Your task to perform on an android device: toggle data saver in the chrome app Image 0: 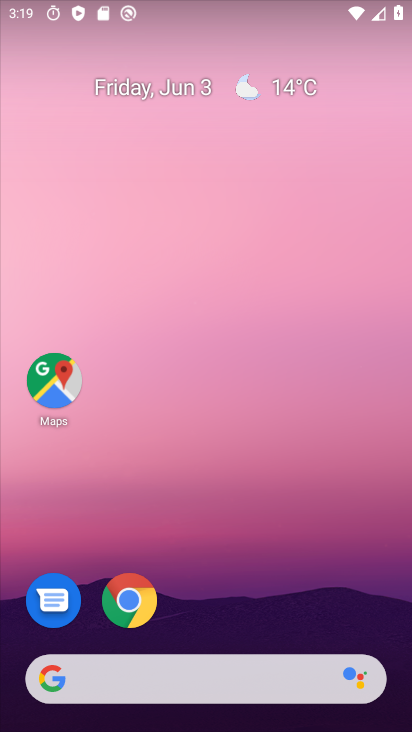
Step 0: drag from (223, 500) to (0, 459)
Your task to perform on an android device: toggle data saver in the chrome app Image 1: 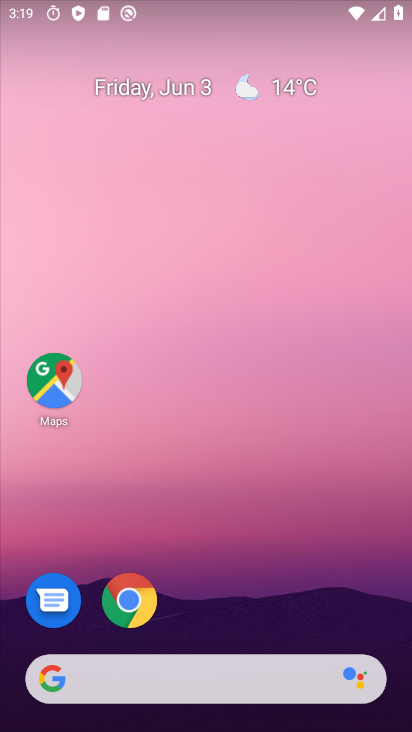
Step 1: drag from (9, 509) to (0, 77)
Your task to perform on an android device: toggle data saver in the chrome app Image 2: 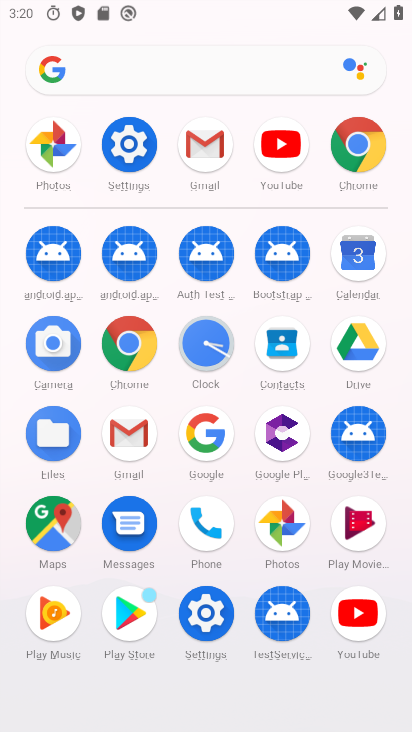
Step 2: click (128, 337)
Your task to perform on an android device: toggle data saver in the chrome app Image 3: 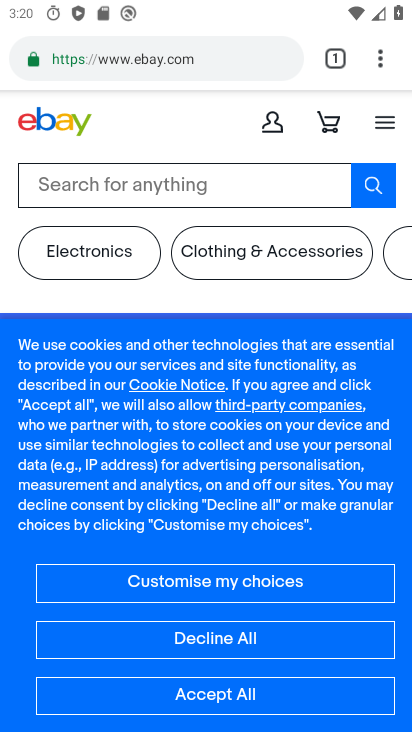
Step 3: drag from (377, 55) to (171, 630)
Your task to perform on an android device: toggle data saver in the chrome app Image 4: 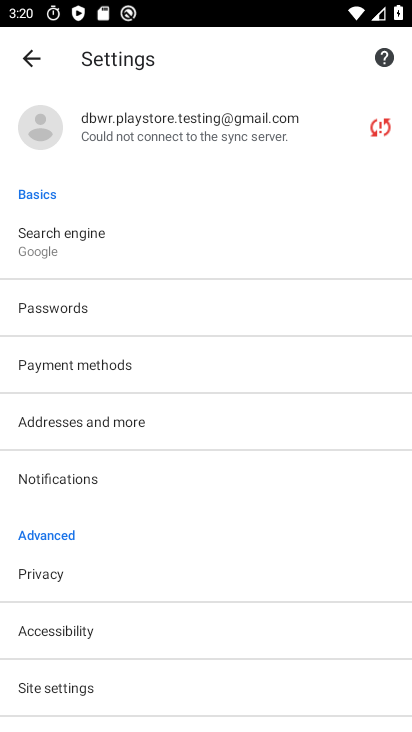
Step 4: drag from (164, 510) to (213, 169)
Your task to perform on an android device: toggle data saver in the chrome app Image 5: 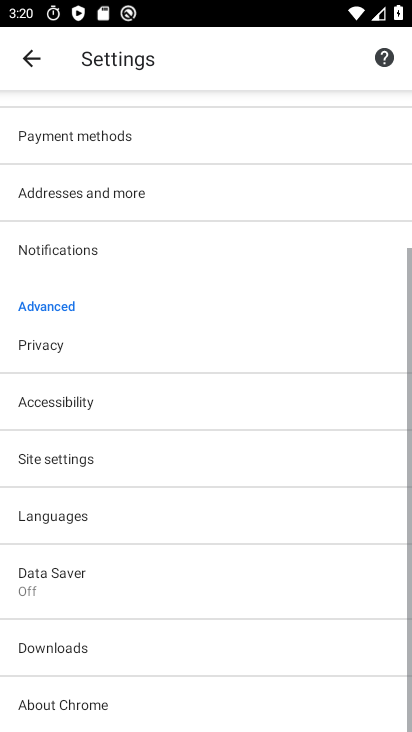
Step 5: drag from (142, 598) to (177, 237)
Your task to perform on an android device: toggle data saver in the chrome app Image 6: 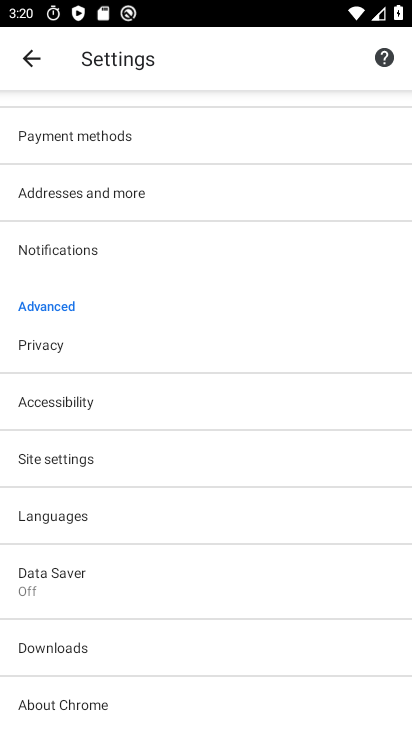
Step 6: click (101, 571)
Your task to perform on an android device: toggle data saver in the chrome app Image 7: 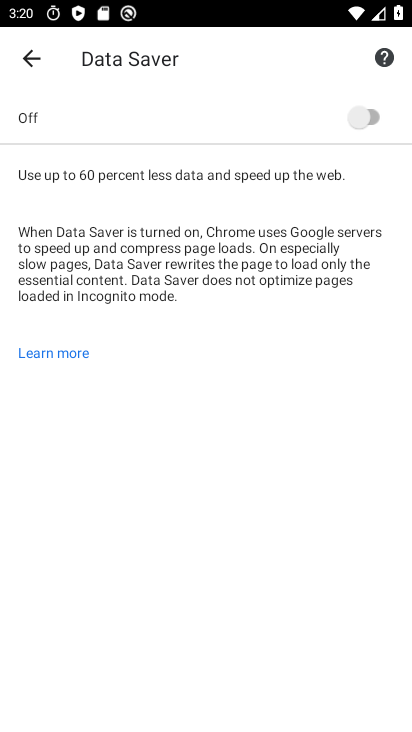
Step 7: click (367, 122)
Your task to perform on an android device: toggle data saver in the chrome app Image 8: 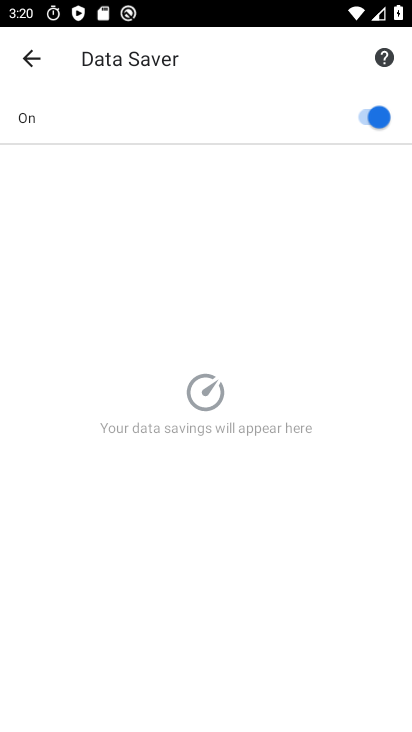
Step 8: task complete